Your task to perform on an android device: Go to battery settings Image 0: 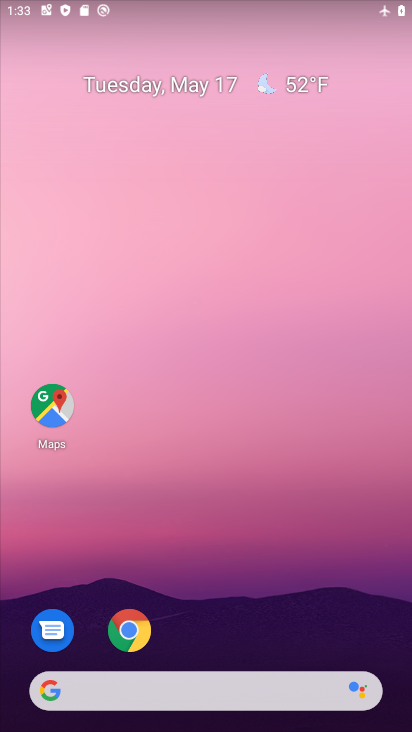
Step 0: drag from (213, 577) to (263, 127)
Your task to perform on an android device: Go to battery settings Image 1: 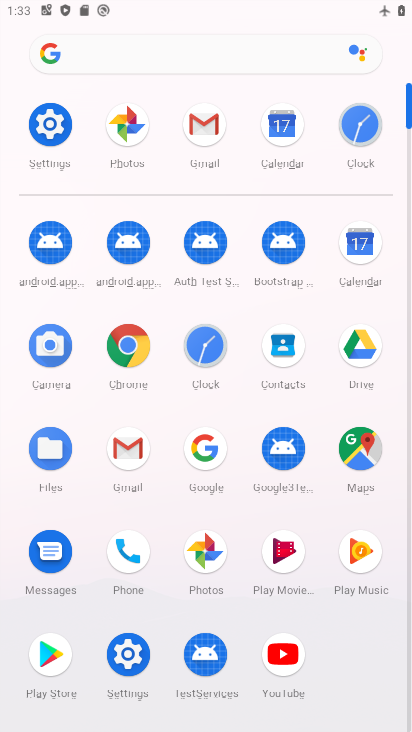
Step 1: click (53, 120)
Your task to perform on an android device: Go to battery settings Image 2: 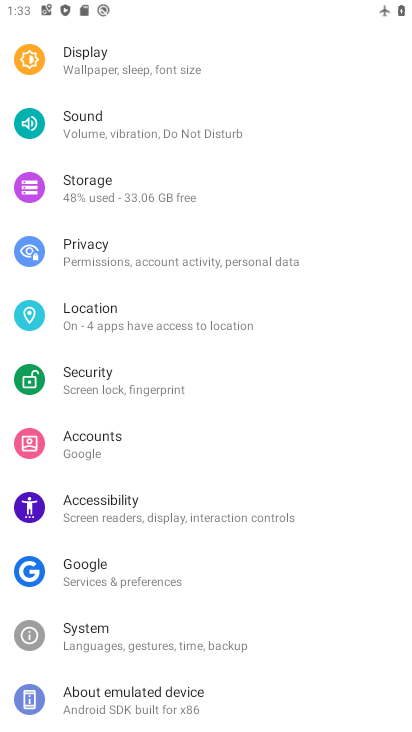
Step 2: drag from (189, 170) to (194, 617)
Your task to perform on an android device: Go to battery settings Image 3: 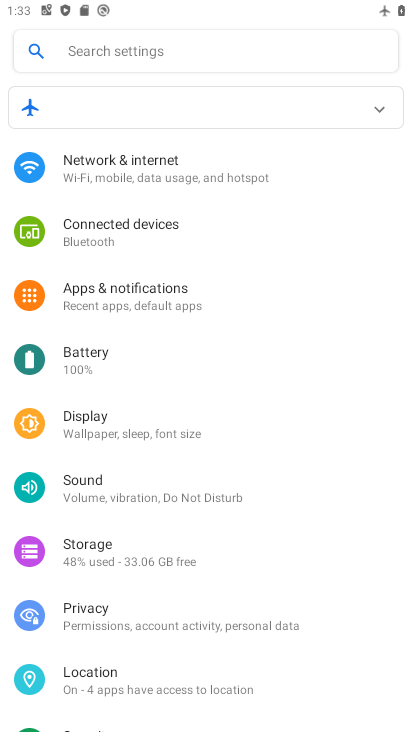
Step 3: click (98, 347)
Your task to perform on an android device: Go to battery settings Image 4: 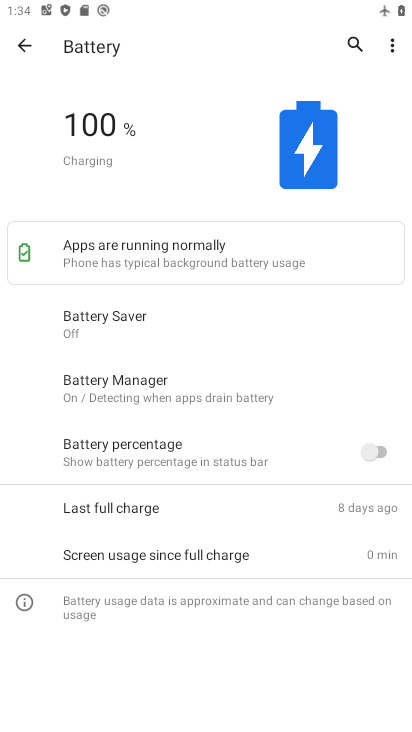
Step 4: task complete